Your task to perform on an android device: uninstall "Calculator" Image 0: 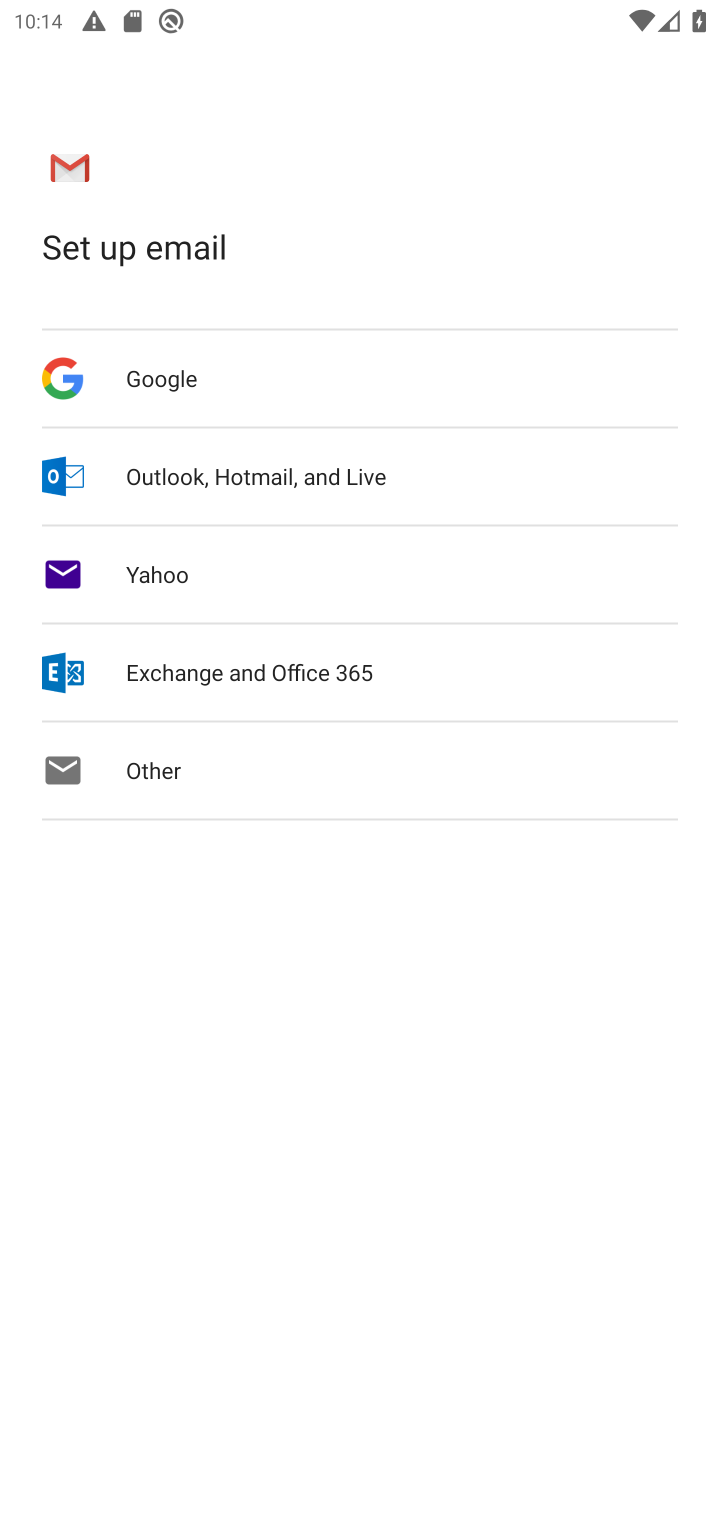
Step 0: press home button
Your task to perform on an android device: uninstall "Calculator" Image 1: 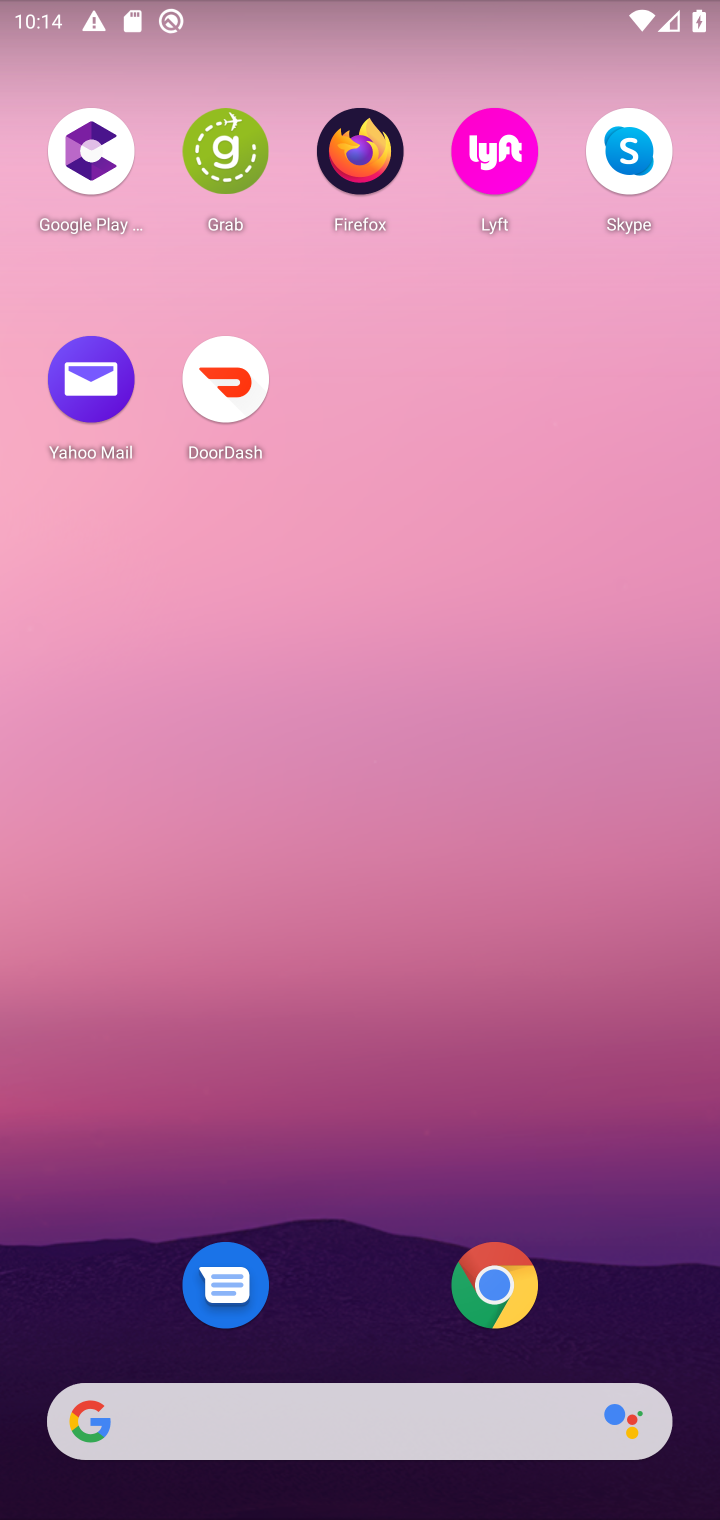
Step 1: drag from (653, 1317) to (457, 108)
Your task to perform on an android device: uninstall "Calculator" Image 2: 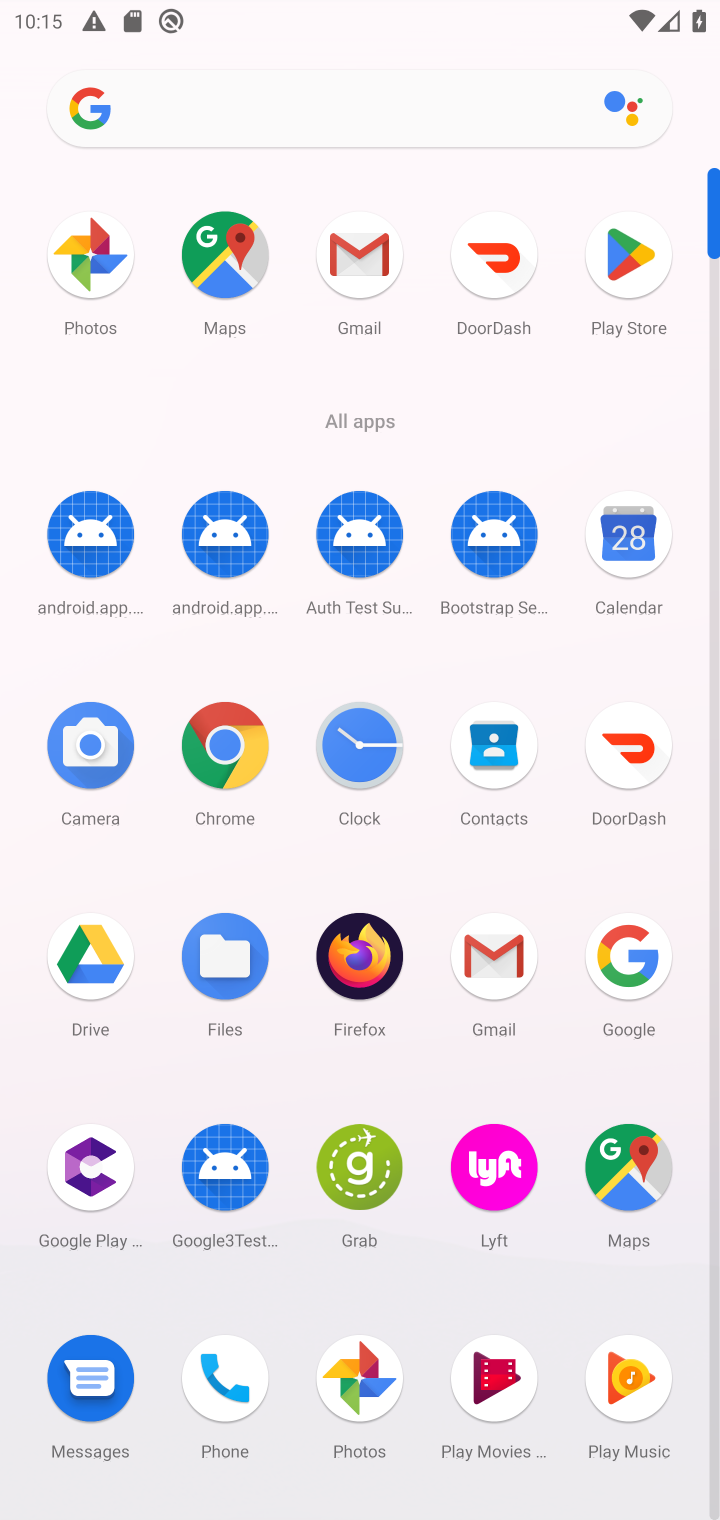
Step 2: click (631, 262)
Your task to perform on an android device: uninstall "Calculator" Image 3: 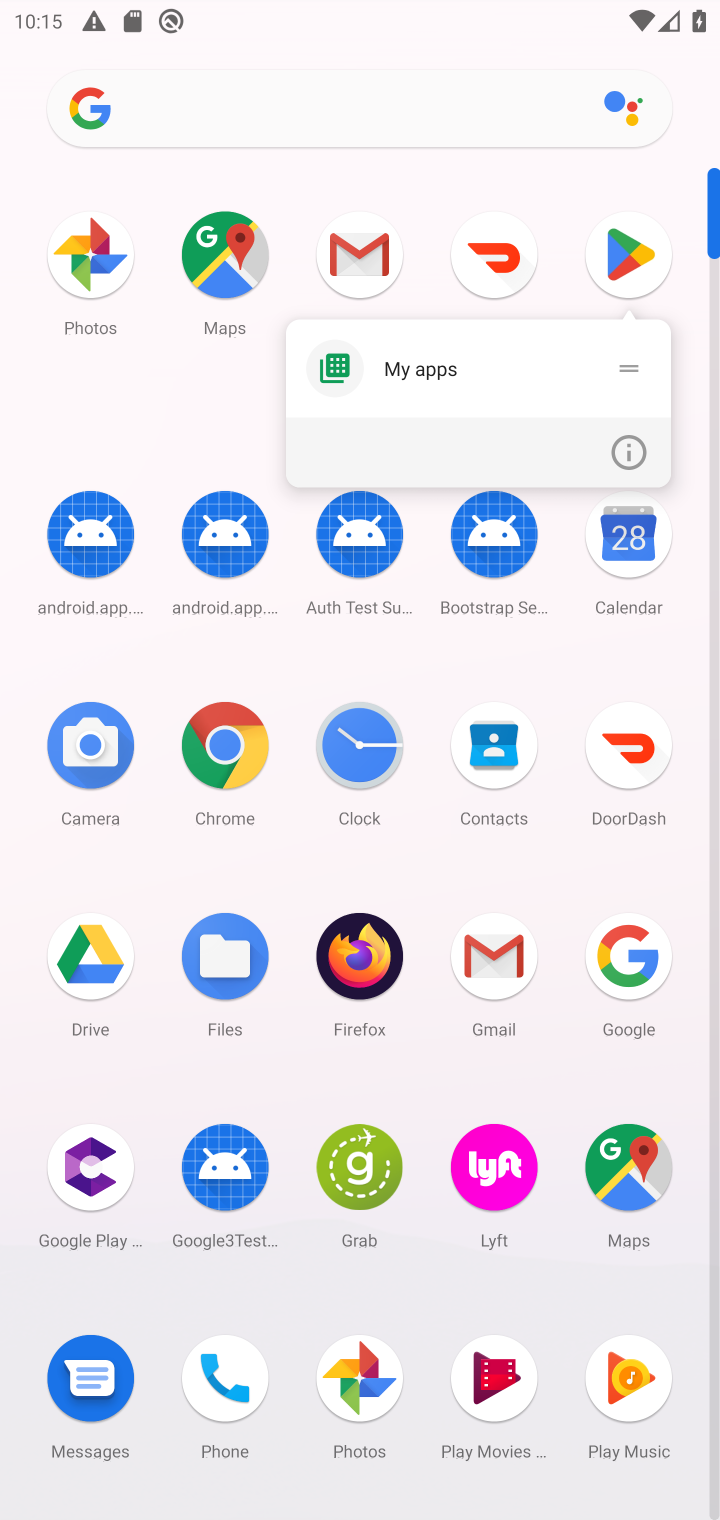
Step 3: click (631, 262)
Your task to perform on an android device: uninstall "Calculator" Image 4: 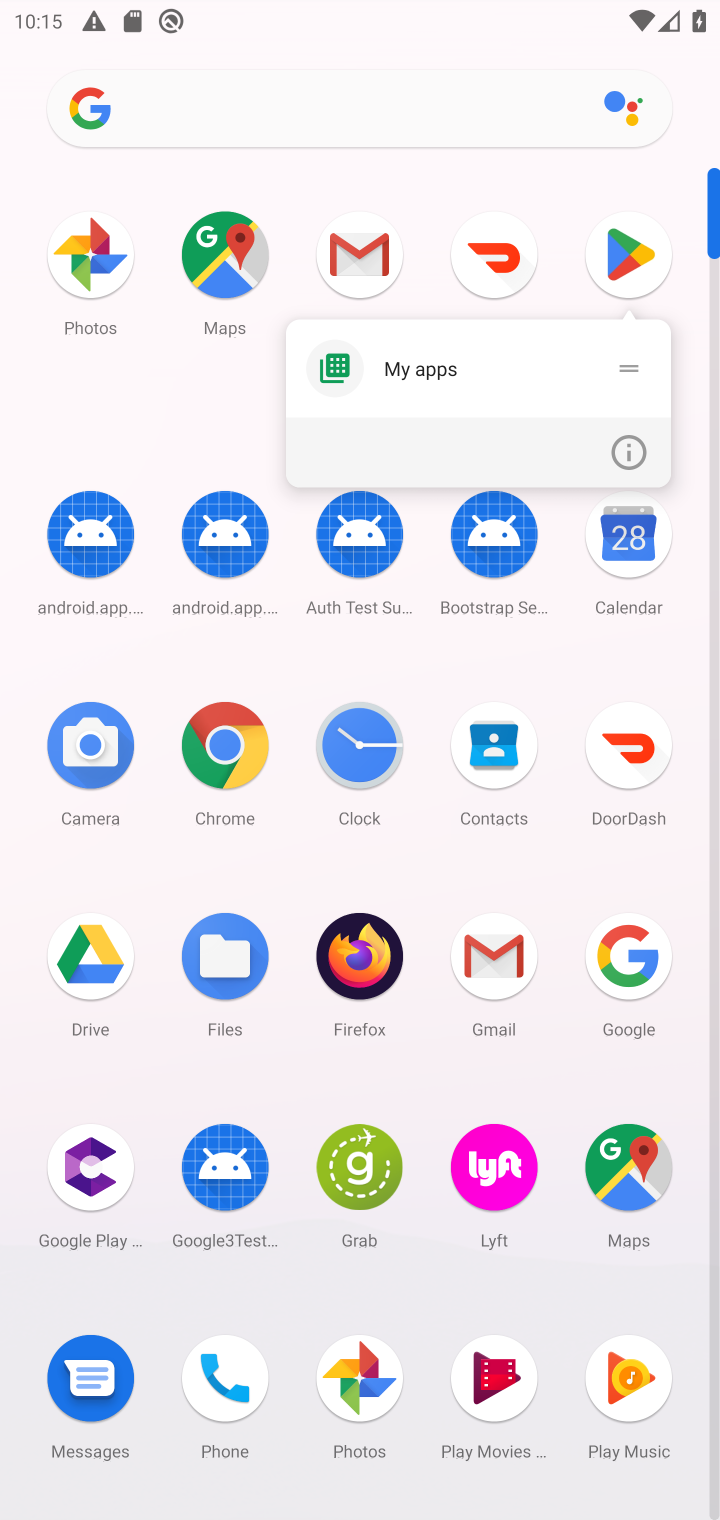
Step 4: click (618, 268)
Your task to perform on an android device: uninstall "Calculator" Image 5: 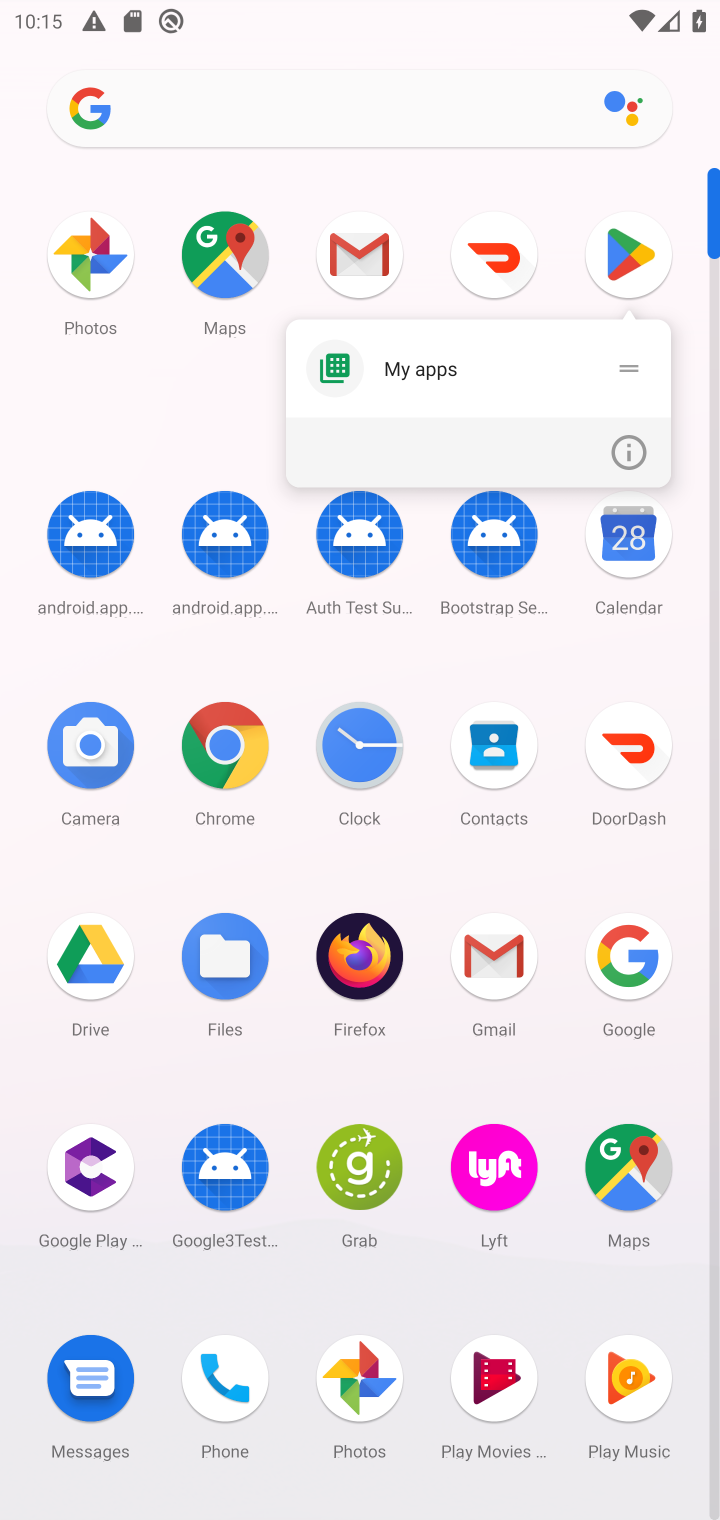
Step 5: click (618, 266)
Your task to perform on an android device: uninstall "Calculator" Image 6: 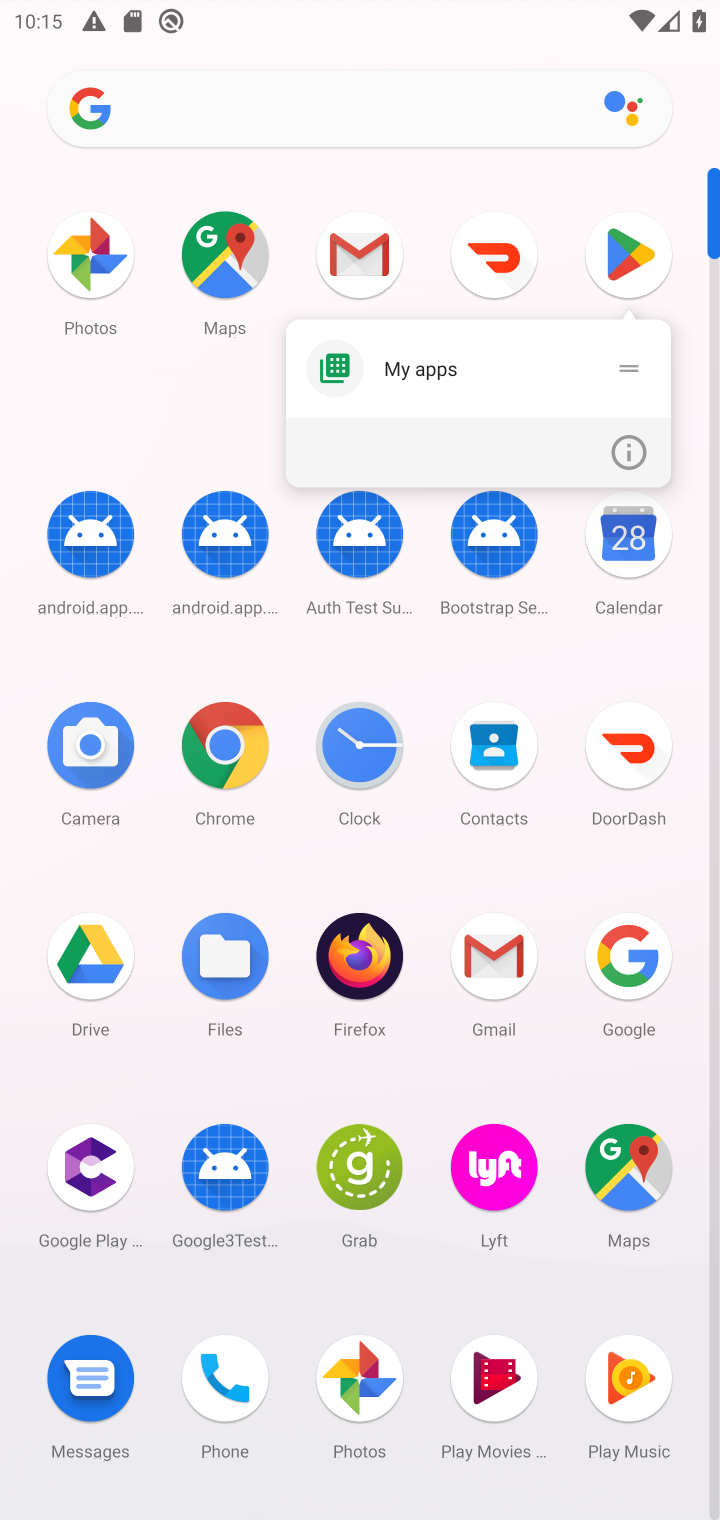
Step 6: click (639, 256)
Your task to perform on an android device: uninstall "Calculator" Image 7: 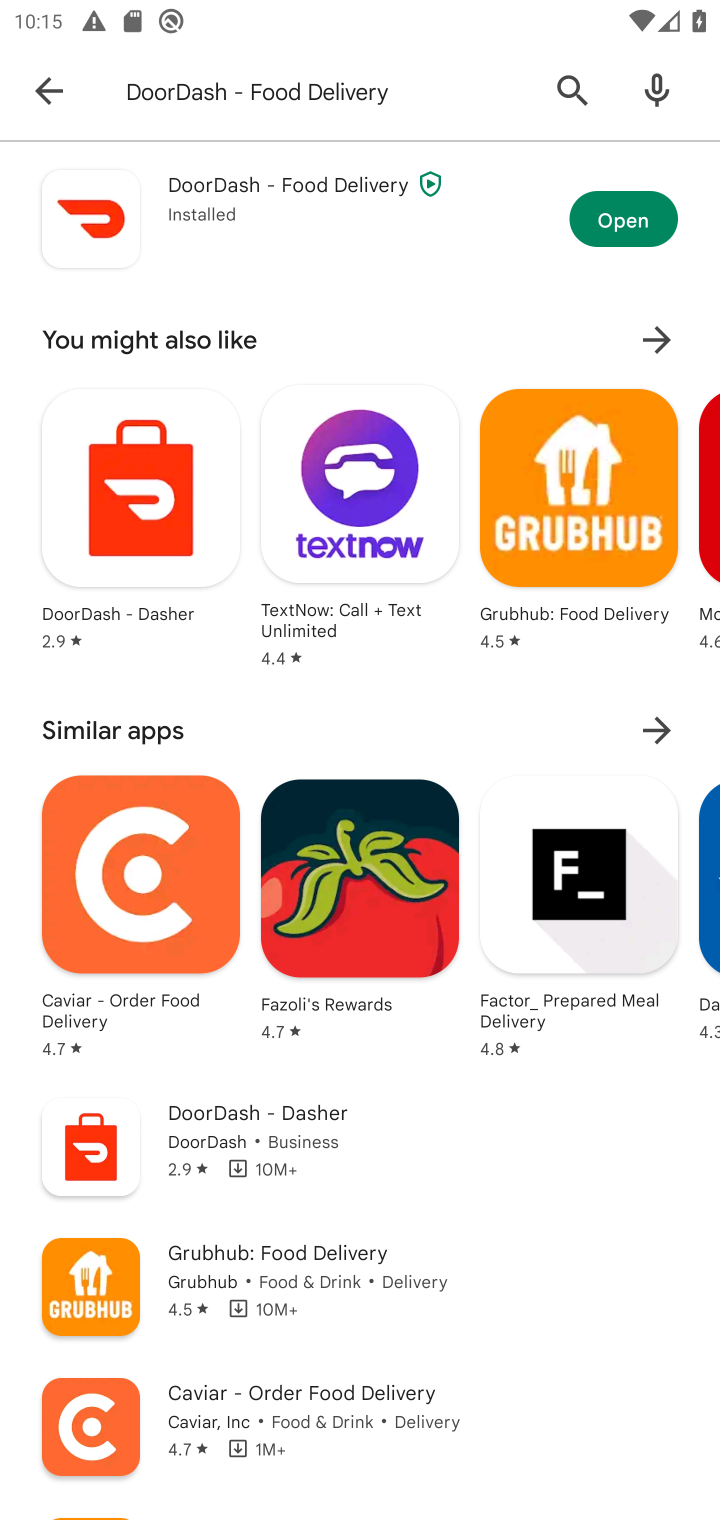
Step 7: click (295, 88)
Your task to perform on an android device: uninstall "Calculator" Image 8: 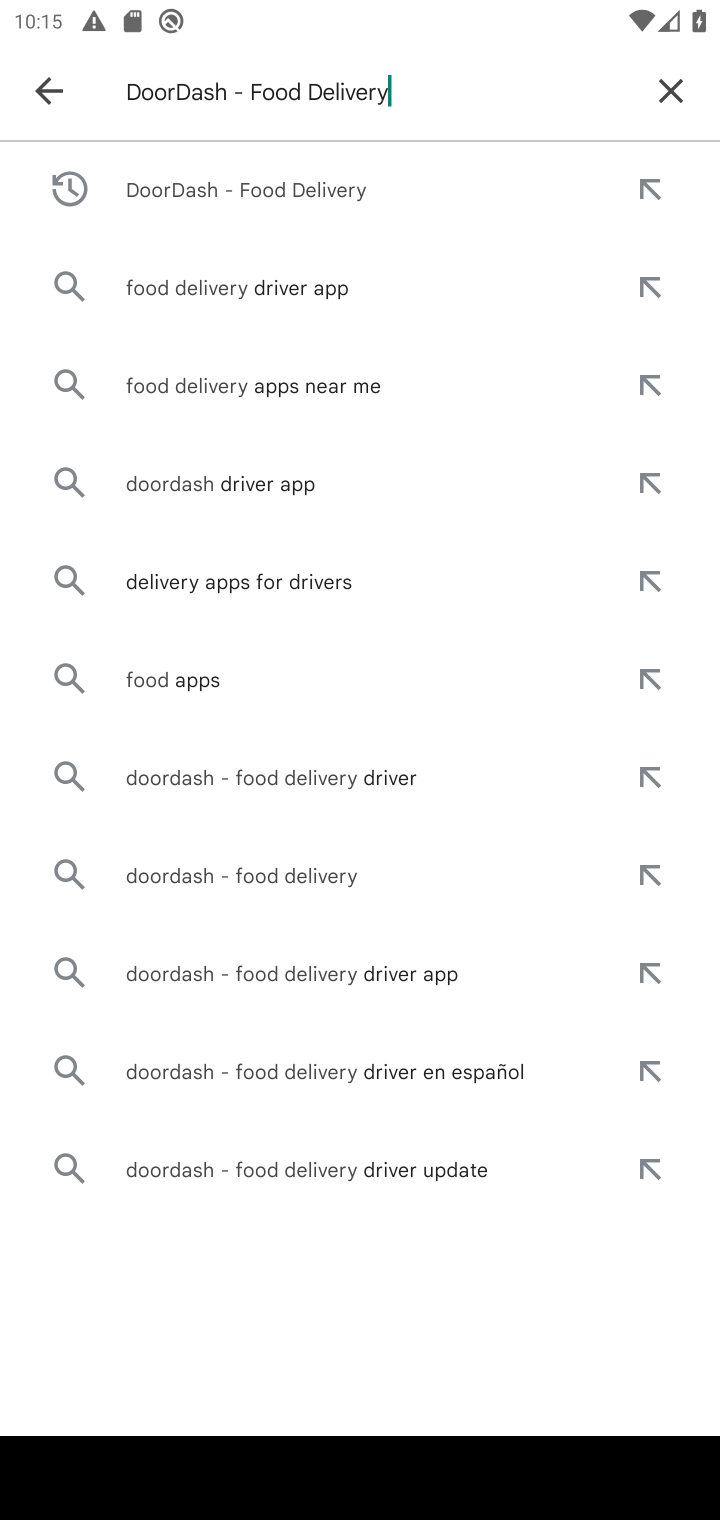
Step 8: click (675, 74)
Your task to perform on an android device: uninstall "Calculator" Image 9: 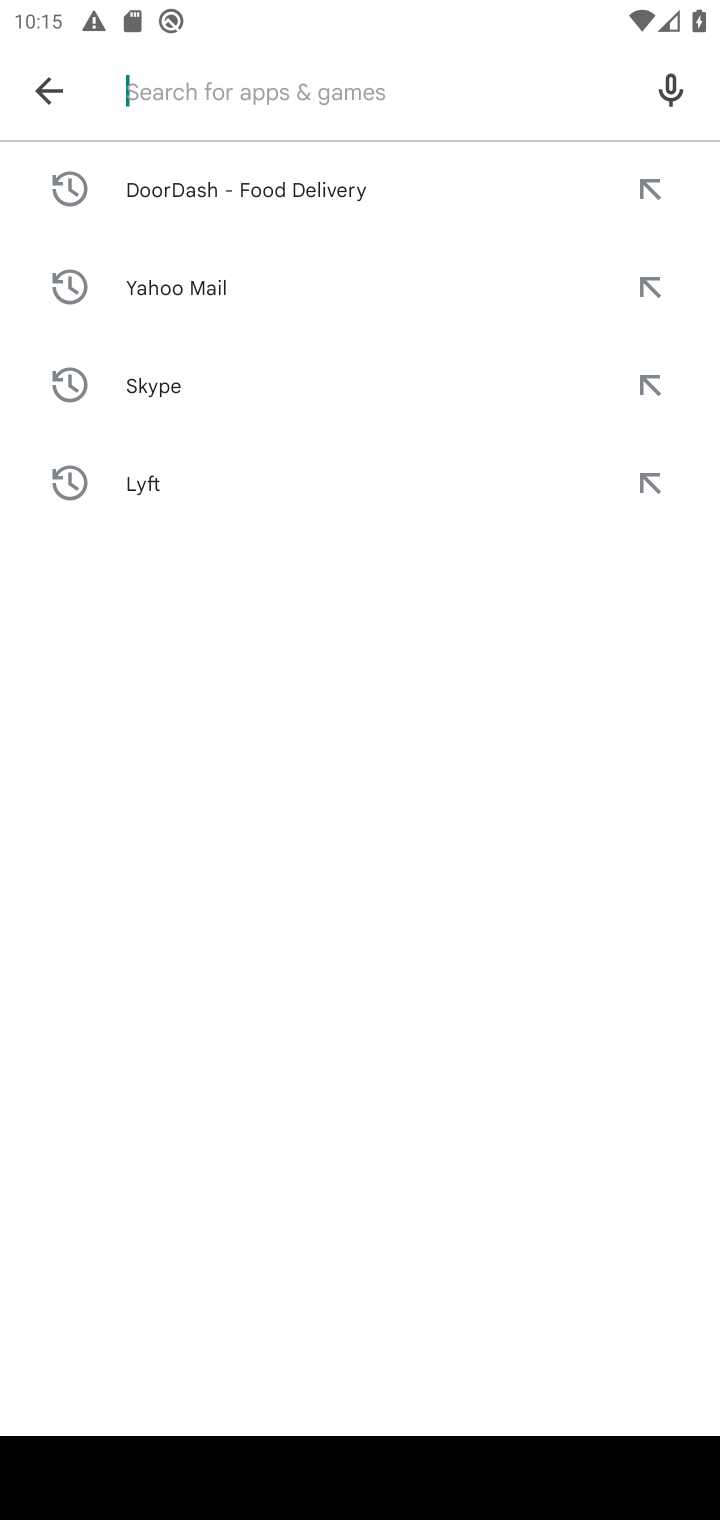
Step 9: type "Calculator"
Your task to perform on an android device: uninstall "Calculator" Image 10: 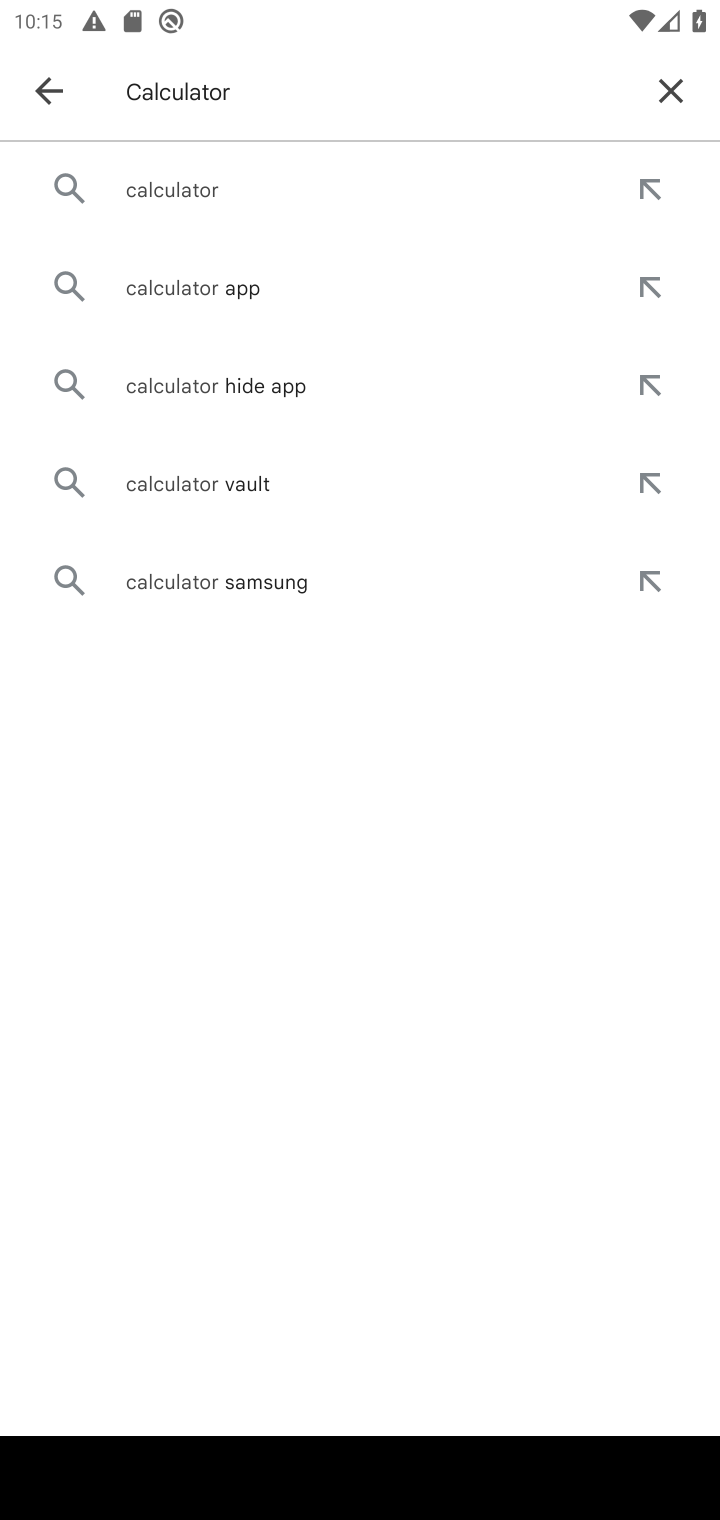
Step 10: press enter
Your task to perform on an android device: uninstall "Calculator" Image 11: 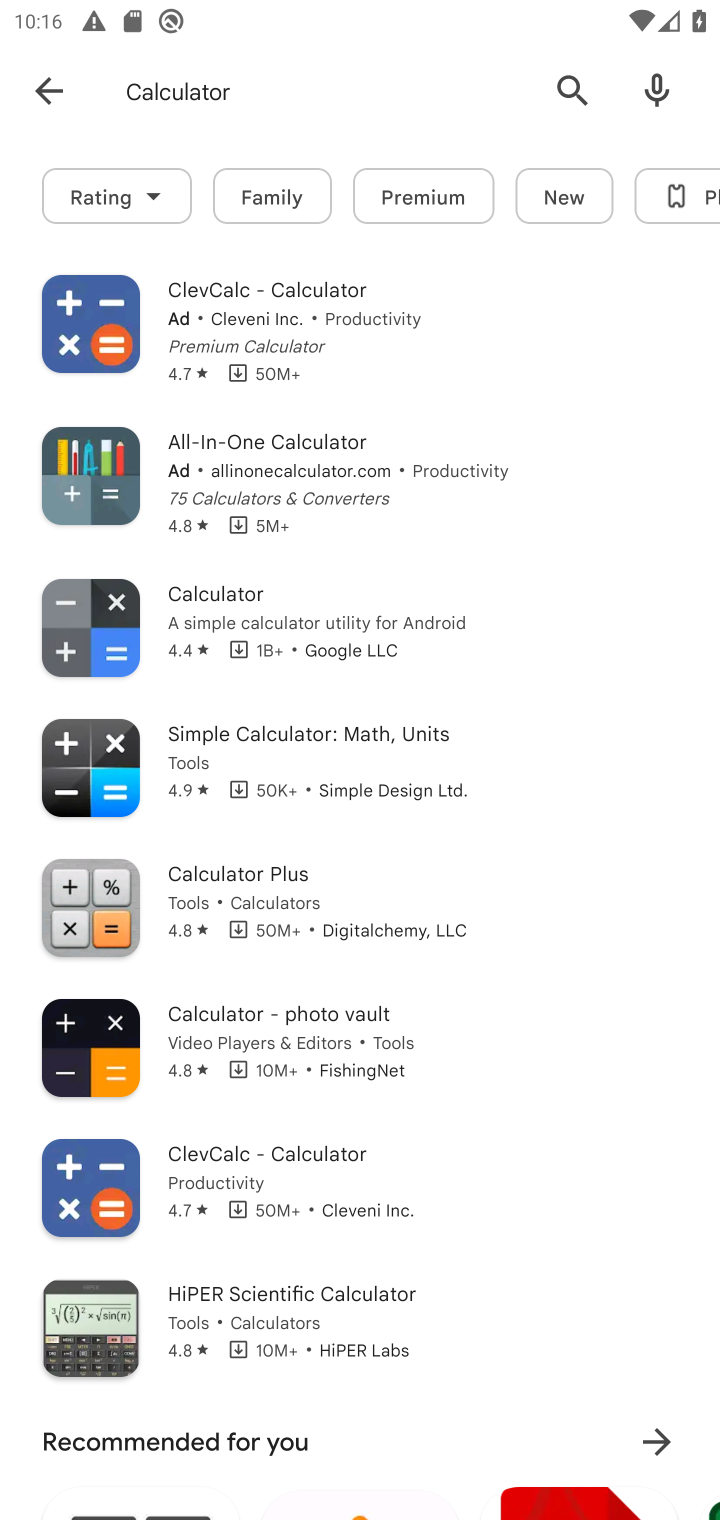
Step 11: click (362, 629)
Your task to perform on an android device: uninstall "Calculator" Image 12: 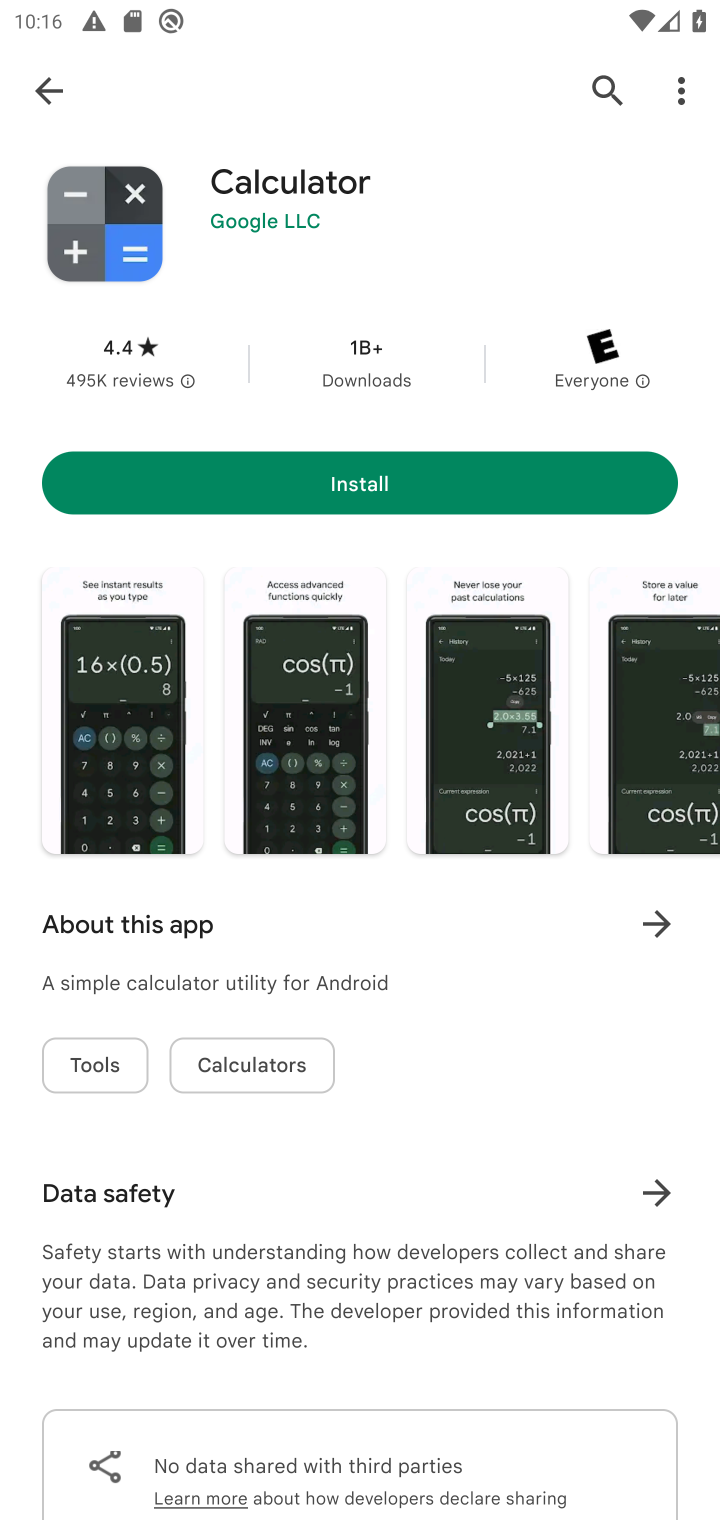
Step 12: task complete